Your task to perform on an android device: Open network settings Image 0: 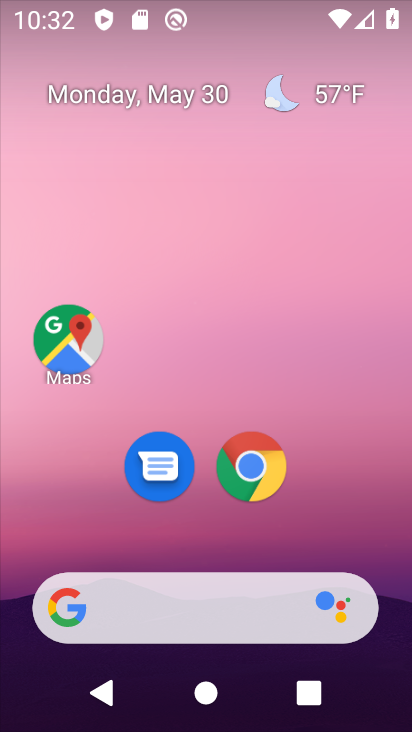
Step 0: press home button
Your task to perform on an android device: Open network settings Image 1: 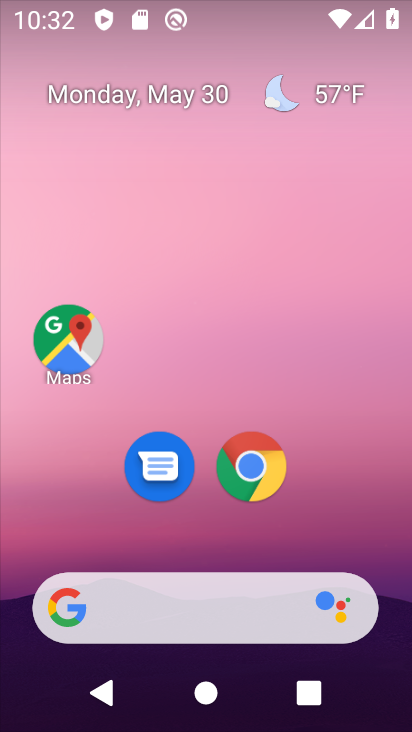
Step 1: drag from (358, 536) to (364, 95)
Your task to perform on an android device: Open network settings Image 2: 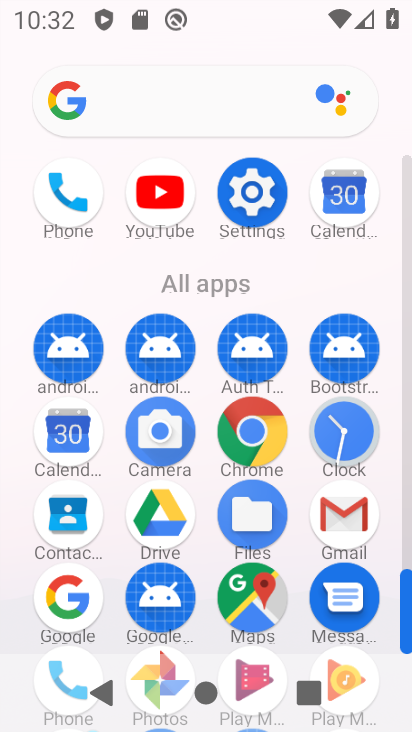
Step 2: click (255, 195)
Your task to perform on an android device: Open network settings Image 3: 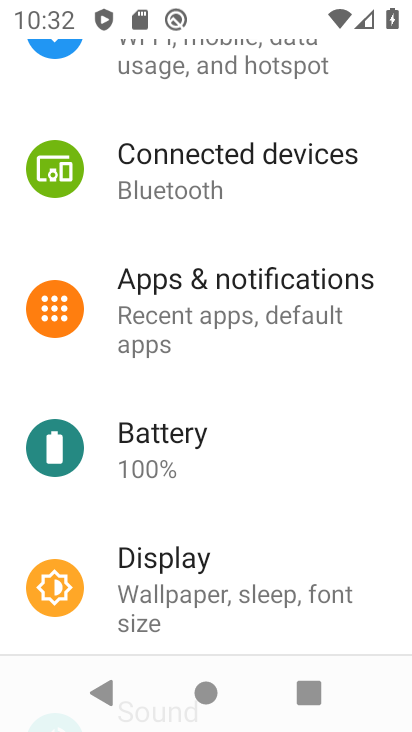
Step 3: drag from (296, 511) to (253, 634)
Your task to perform on an android device: Open network settings Image 4: 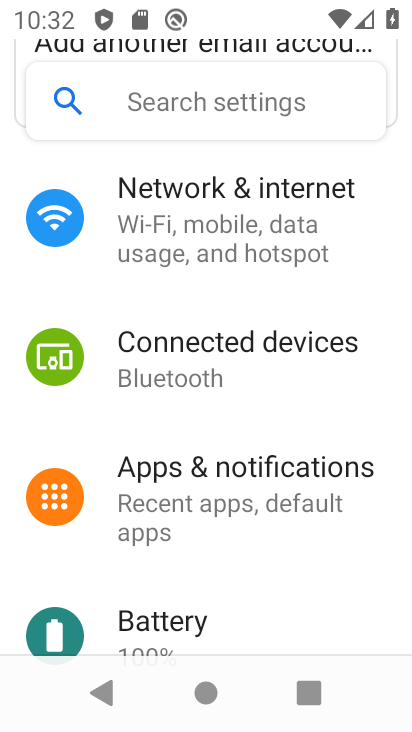
Step 4: click (230, 222)
Your task to perform on an android device: Open network settings Image 5: 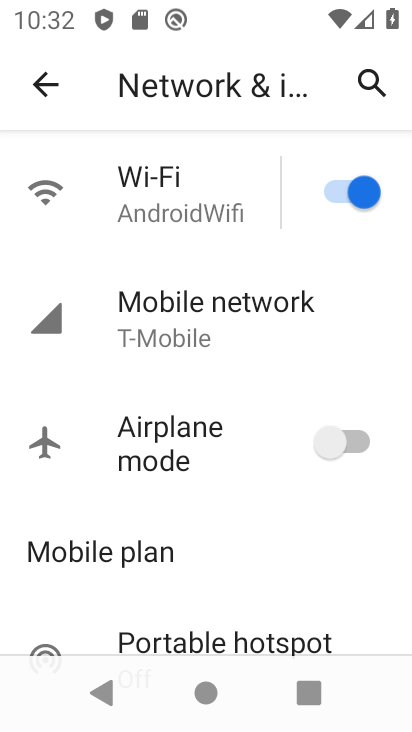
Step 5: click (202, 330)
Your task to perform on an android device: Open network settings Image 6: 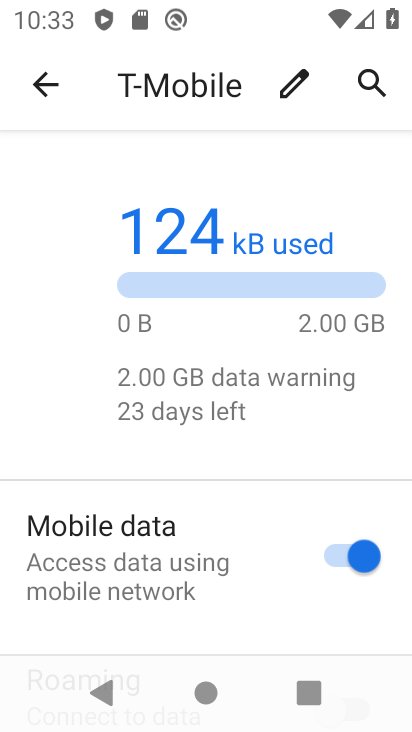
Step 6: task complete